Your task to perform on an android device: toggle show notifications on the lock screen Image 0: 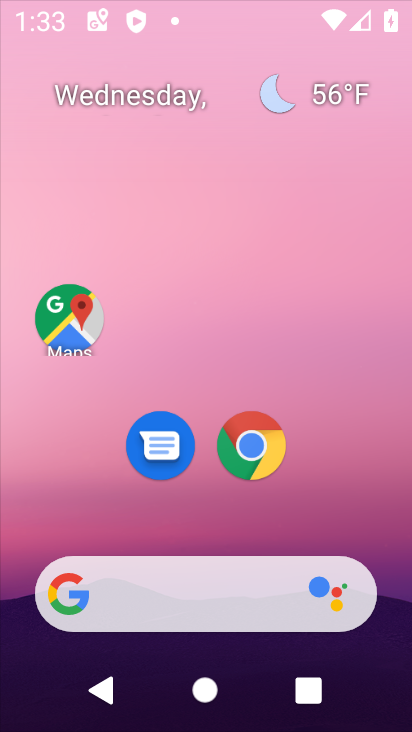
Step 0: click (114, 156)
Your task to perform on an android device: toggle show notifications on the lock screen Image 1: 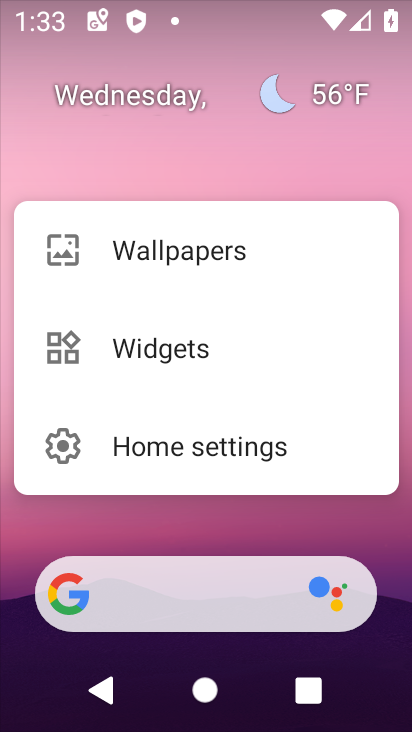
Step 1: drag from (222, 550) to (154, 20)
Your task to perform on an android device: toggle show notifications on the lock screen Image 2: 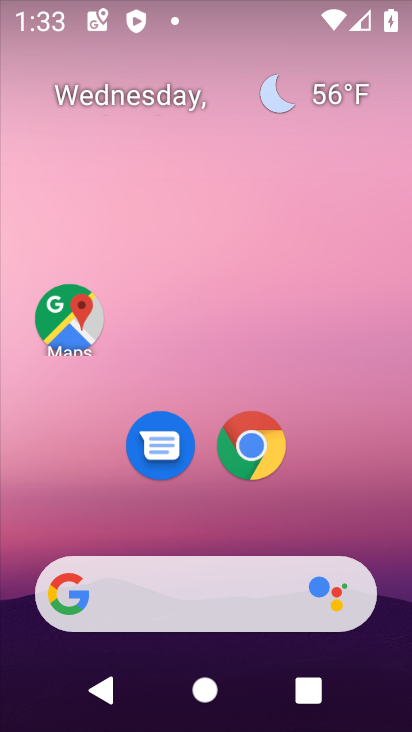
Step 2: drag from (192, 526) to (115, 26)
Your task to perform on an android device: toggle show notifications on the lock screen Image 3: 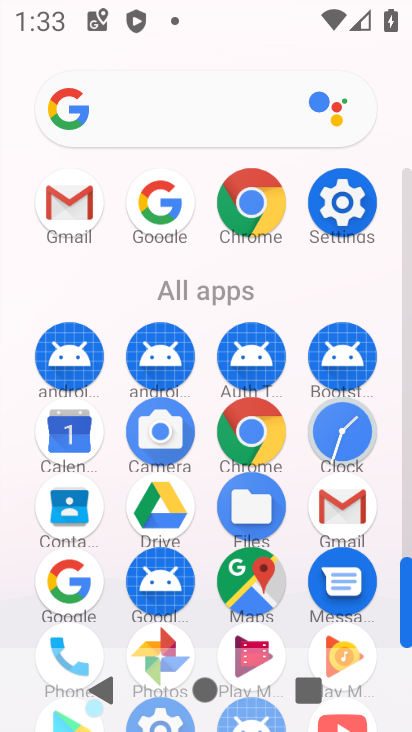
Step 3: click (333, 197)
Your task to perform on an android device: toggle show notifications on the lock screen Image 4: 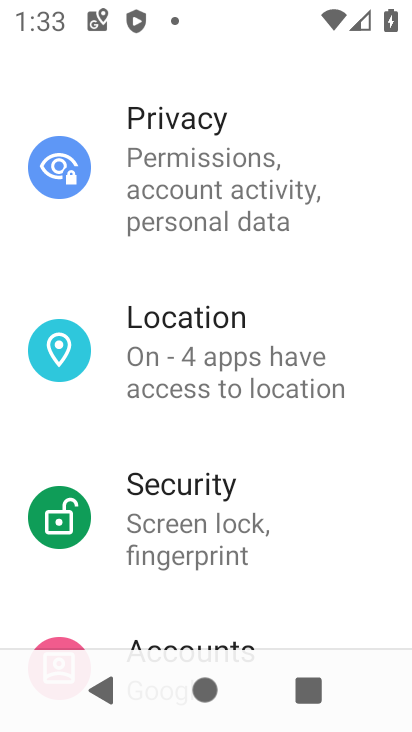
Step 4: drag from (309, 203) to (254, 538)
Your task to perform on an android device: toggle show notifications on the lock screen Image 5: 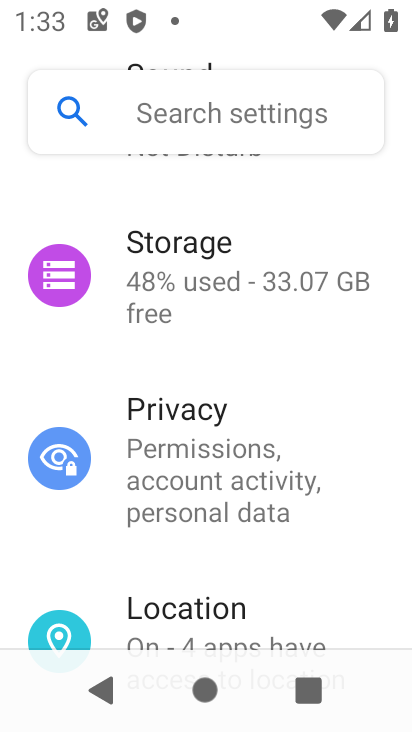
Step 5: drag from (241, 254) to (209, 613)
Your task to perform on an android device: toggle show notifications on the lock screen Image 6: 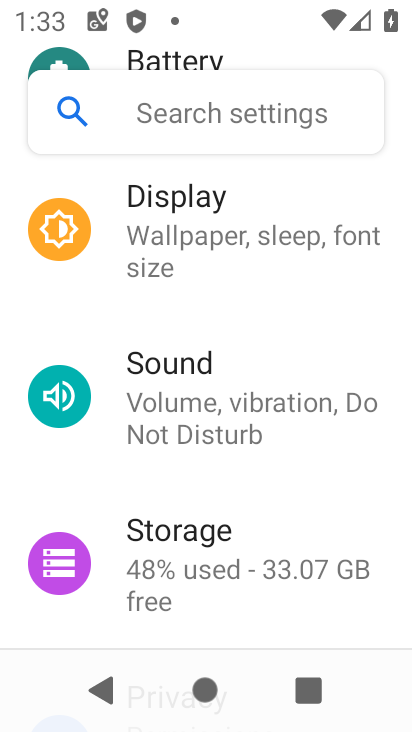
Step 6: drag from (241, 201) to (221, 544)
Your task to perform on an android device: toggle show notifications on the lock screen Image 7: 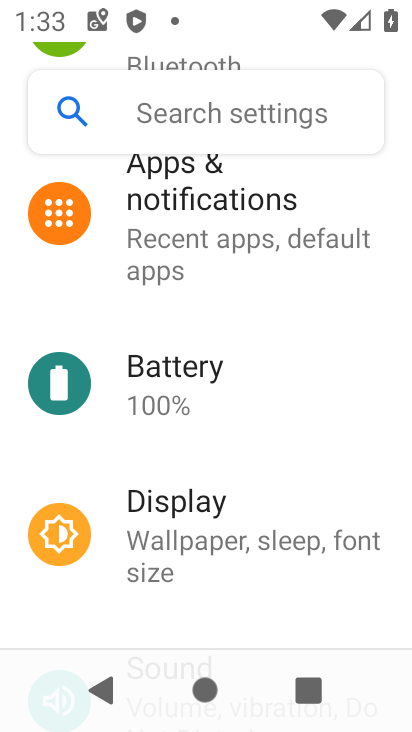
Step 7: click (212, 205)
Your task to perform on an android device: toggle show notifications on the lock screen Image 8: 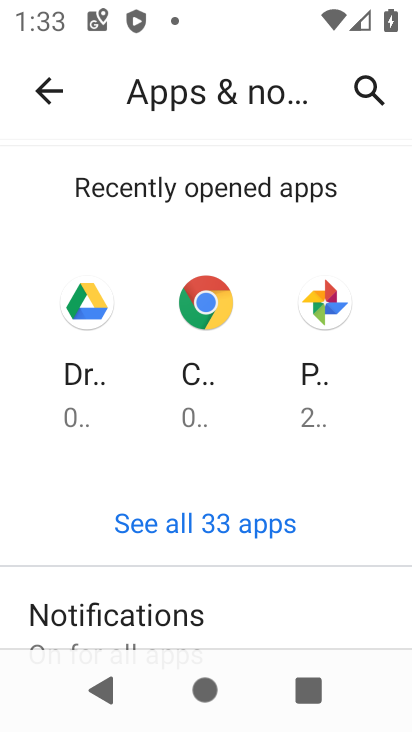
Step 8: click (187, 615)
Your task to perform on an android device: toggle show notifications on the lock screen Image 9: 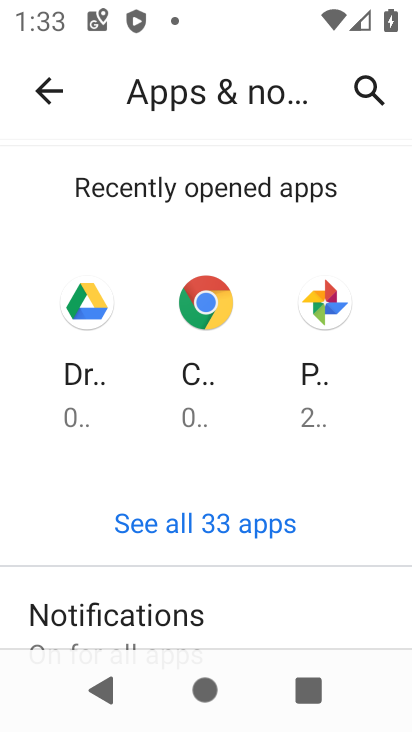
Step 9: drag from (186, 614) to (117, 100)
Your task to perform on an android device: toggle show notifications on the lock screen Image 10: 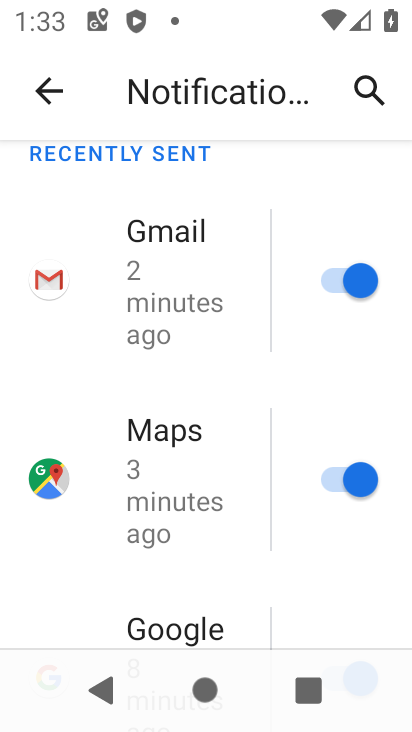
Step 10: drag from (102, 366) to (72, 164)
Your task to perform on an android device: toggle show notifications on the lock screen Image 11: 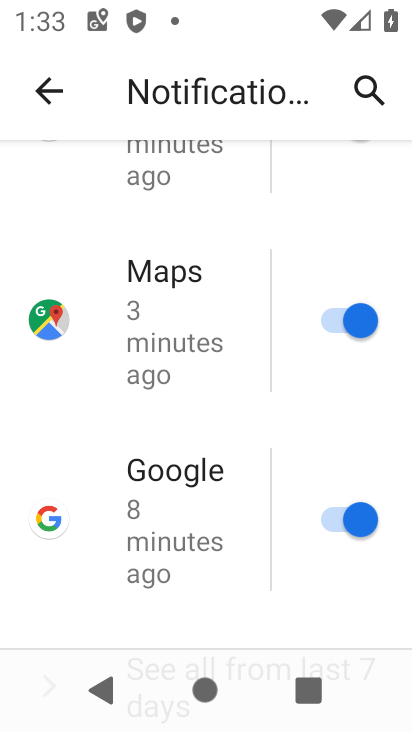
Step 11: drag from (184, 608) to (170, 170)
Your task to perform on an android device: toggle show notifications on the lock screen Image 12: 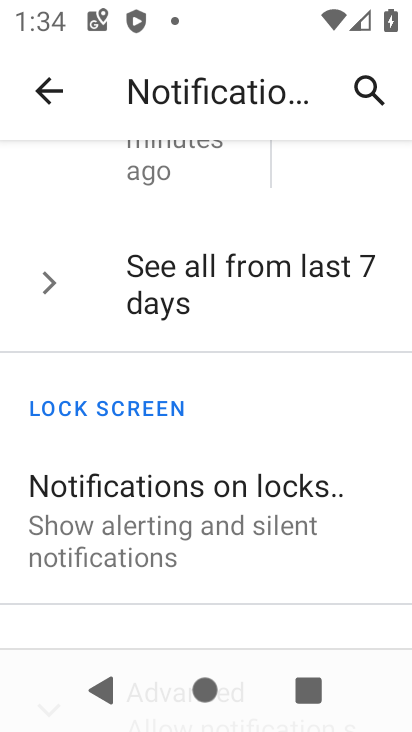
Step 12: click (220, 480)
Your task to perform on an android device: toggle show notifications on the lock screen Image 13: 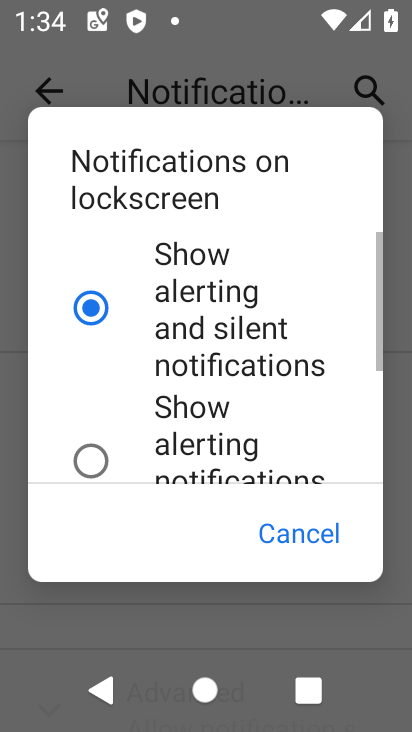
Step 13: click (219, 418)
Your task to perform on an android device: toggle show notifications on the lock screen Image 14: 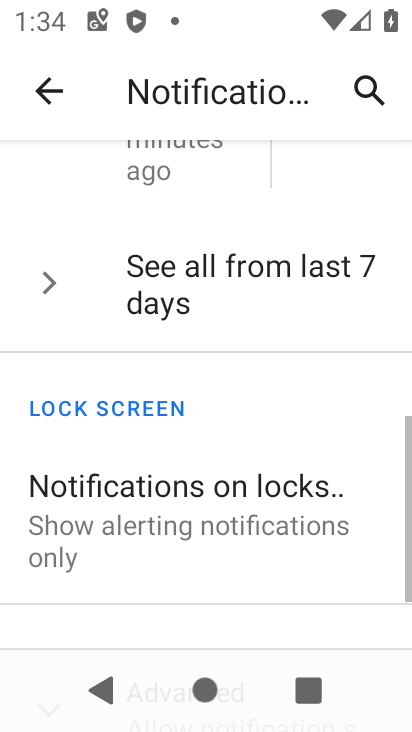
Step 14: task complete